Your task to perform on an android device: open chrome and create a bookmark for the current page Image 0: 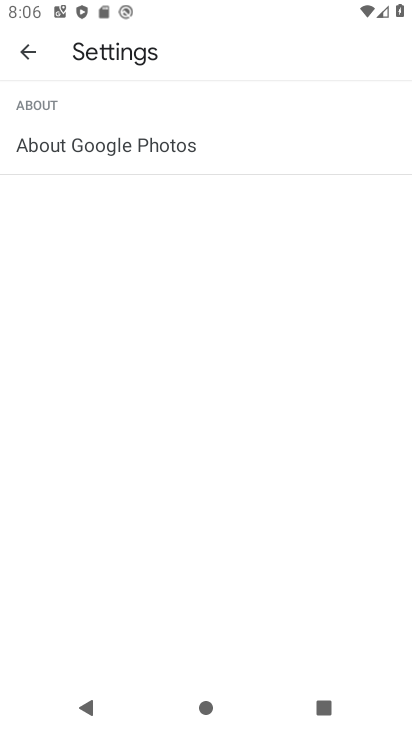
Step 0: press back button
Your task to perform on an android device: open chrome and create a bookmark for the current page Image 1: 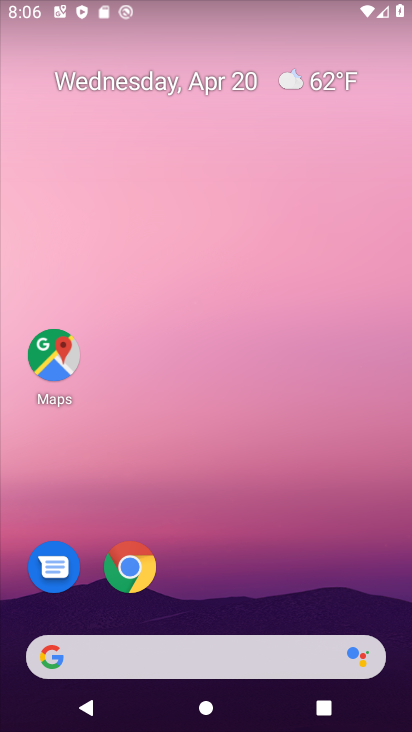
Step 1: drag from (376, 585) to (301, 4)
Your task to perform on an android device: open chrome and create a bookmark for the current page Image 2: 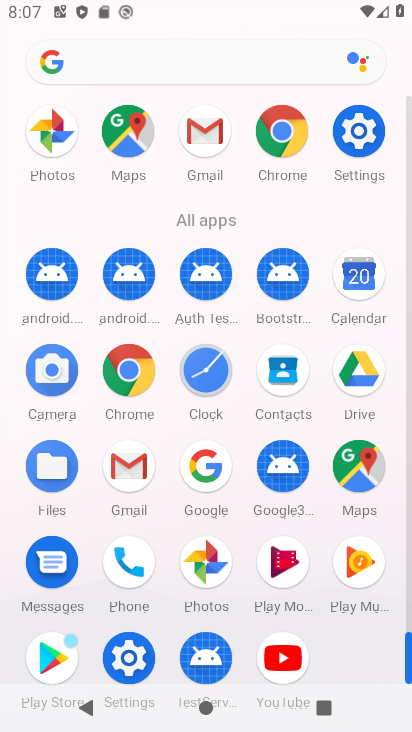
Step 2: click (281, 133)
Your task to perform on an android device: open chrome and create a bookmark for the current page Image 3: 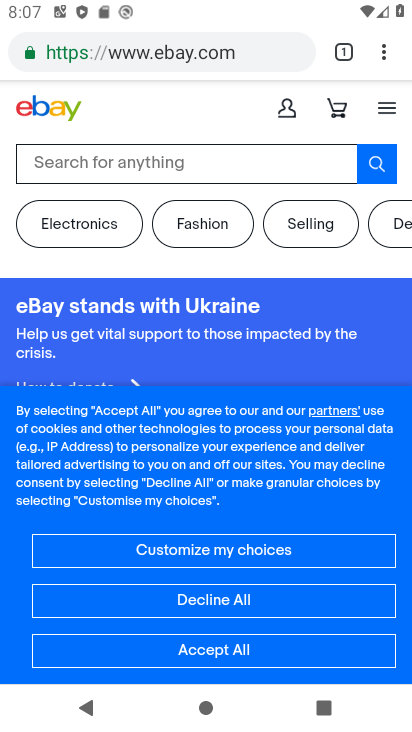
Step 3: task complete